Your task to perform on an android device: read, delete, or share a saved page in the chrome app Image 0: 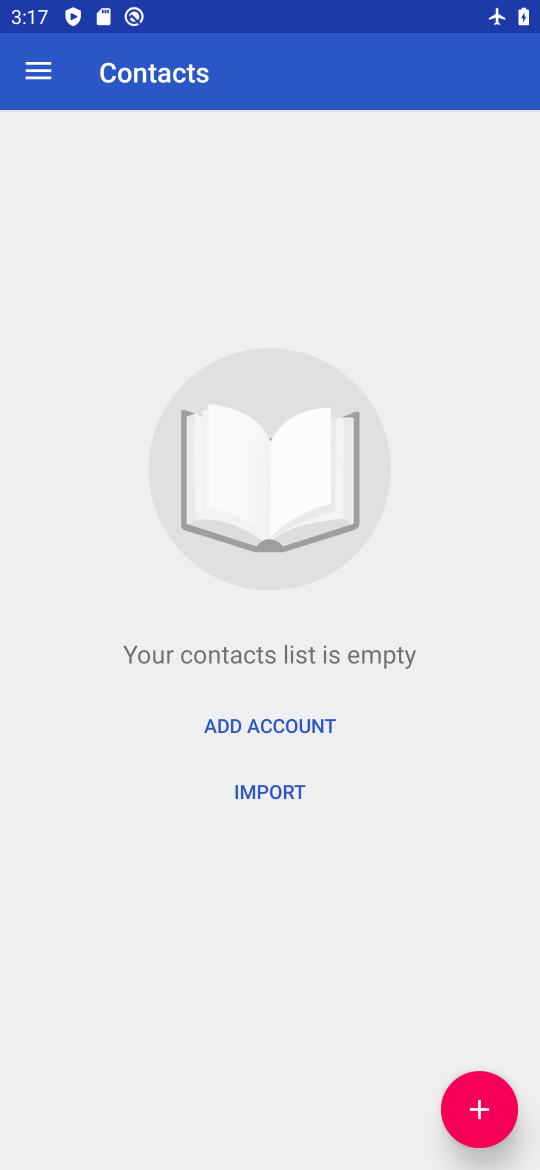
Step 0: task complete